Your task to perform on an android device: turn off data saver in the chrome app Image 0: 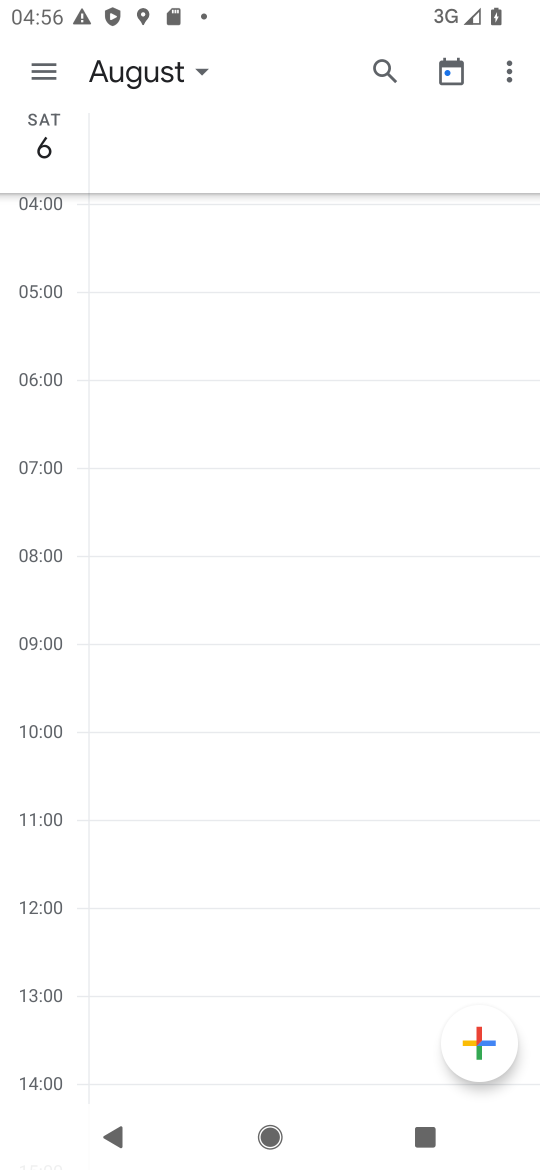
Step 0: press home button
Your task to perform on an android device: turn off data saver in the chrome app Image 1: 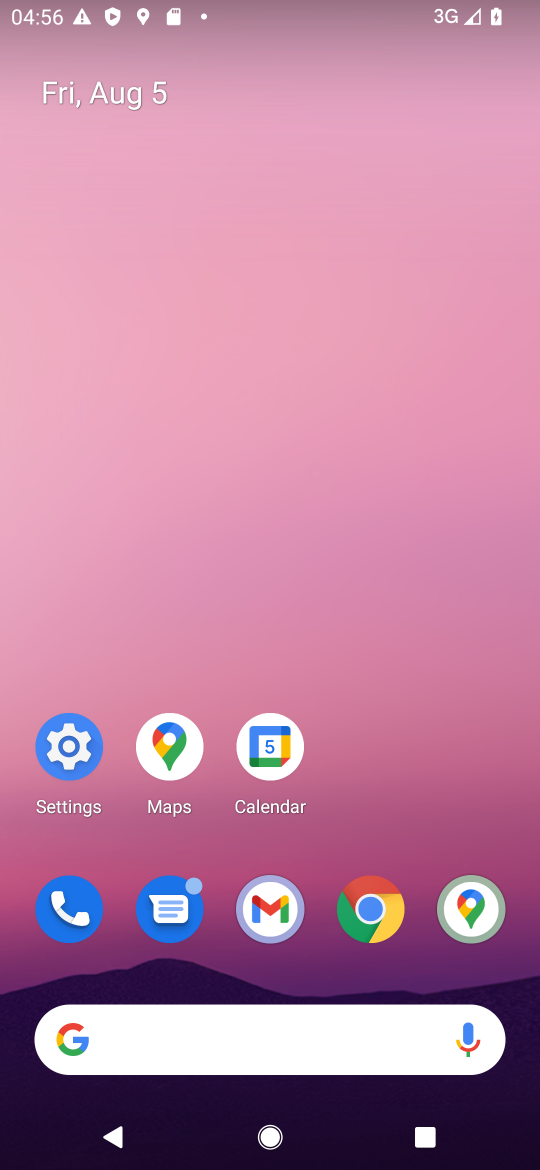
Step 1: click (367, 902)
Your task to perform on an android device: turn off data saver in the chrome app Image 2: 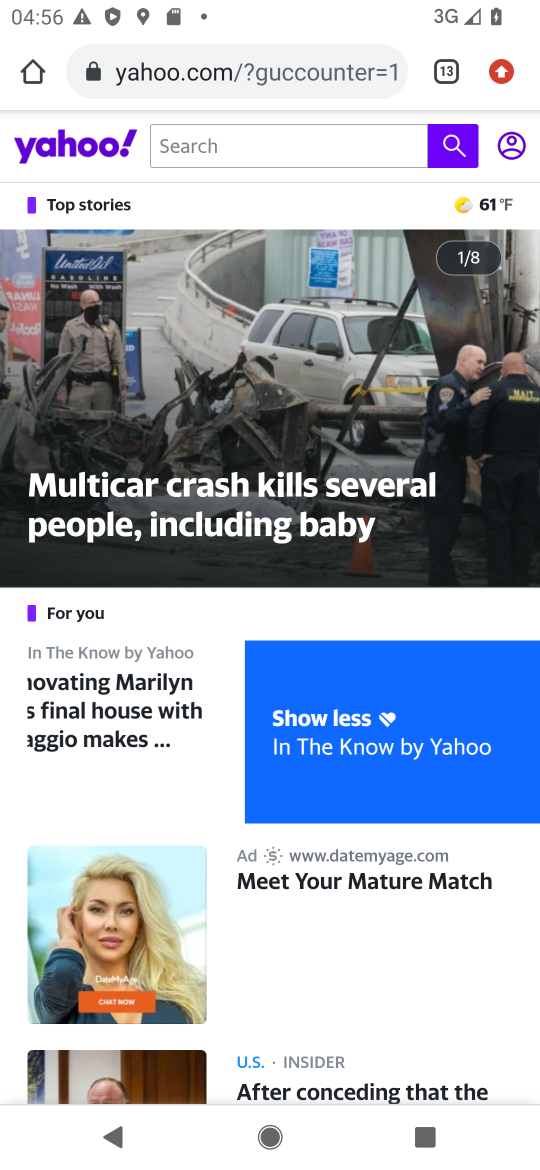
Step 2: click (495, 71)
Your task to perform on an android device: turn off data saver in the chrome app Image 3: 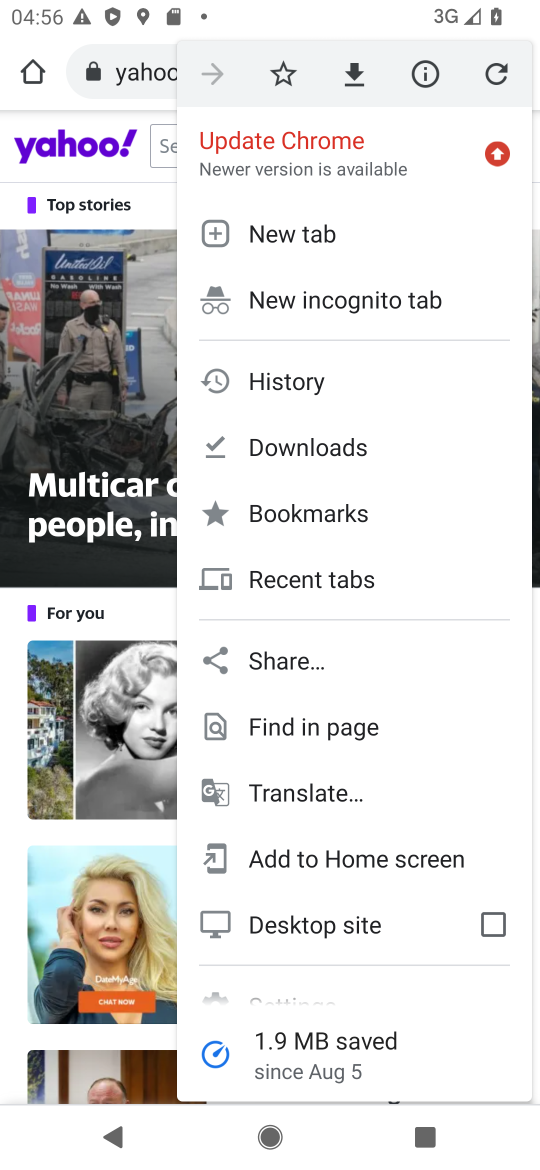
Step 3: drag from (397, 805) to (370, 144)
Your task to perform on an android device: turn off data saver in the chrome app Image 4: 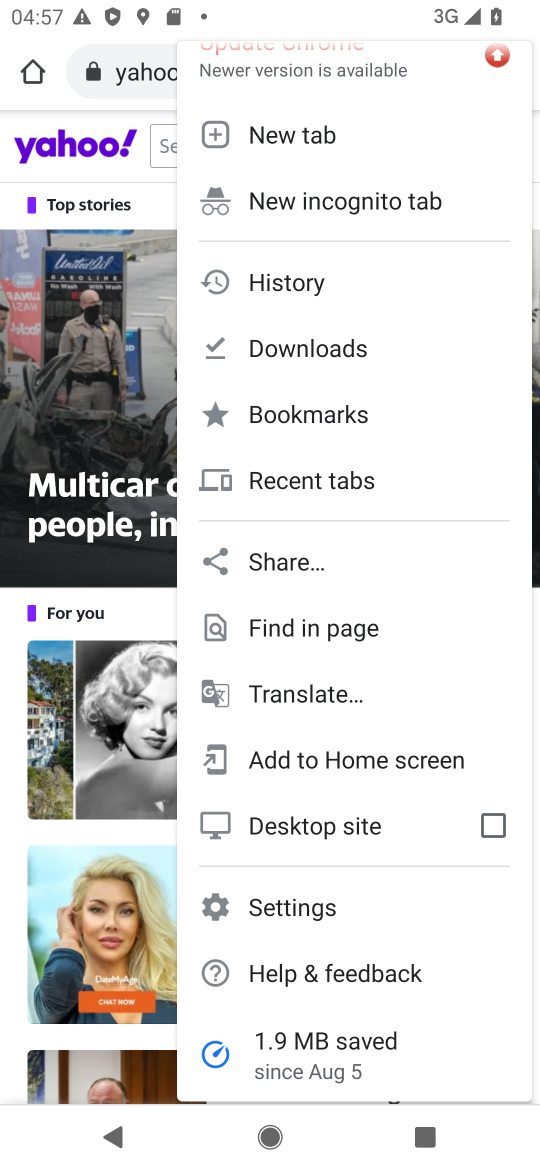
Step 4: click (295, 906)
Your task to perform on an android device: turn off data saver in the chrome app Image 5: 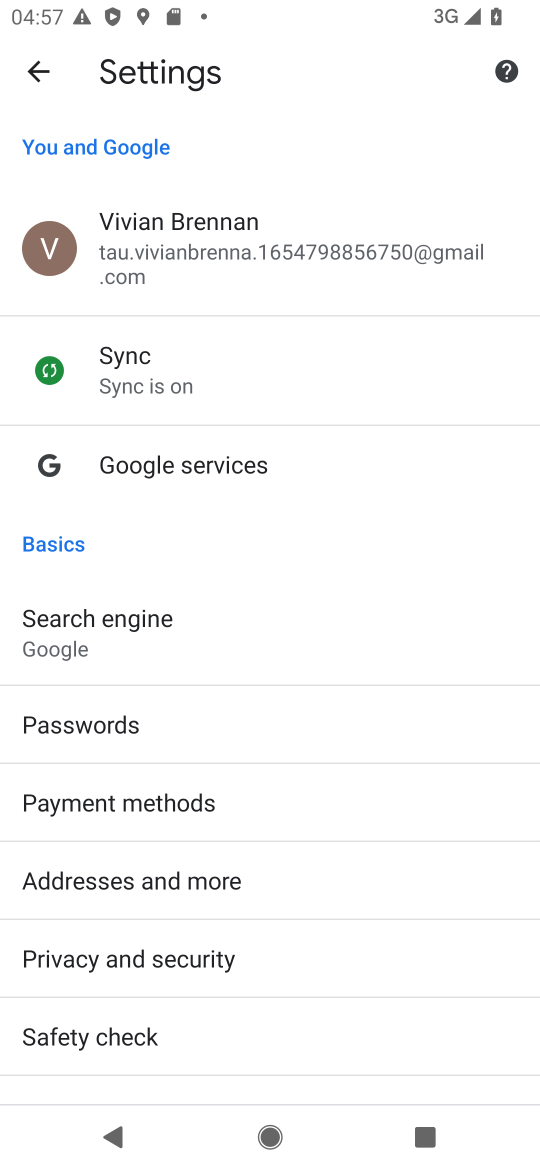
Step 5: drag from (275, 972) to (256, 257)
Your task to perform on an android device: turn off data saver in the chrome app Image 6: 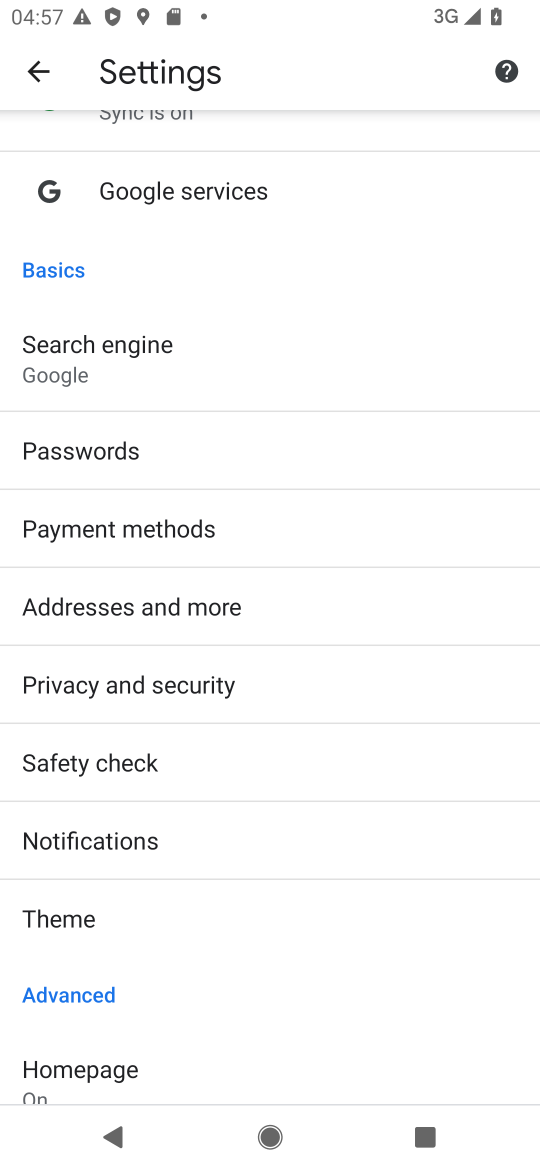
Step 6: drag from (286, 983) to (277, 378)
Your task to perform on an android device: turn off data saver in the chrome app Image 7: 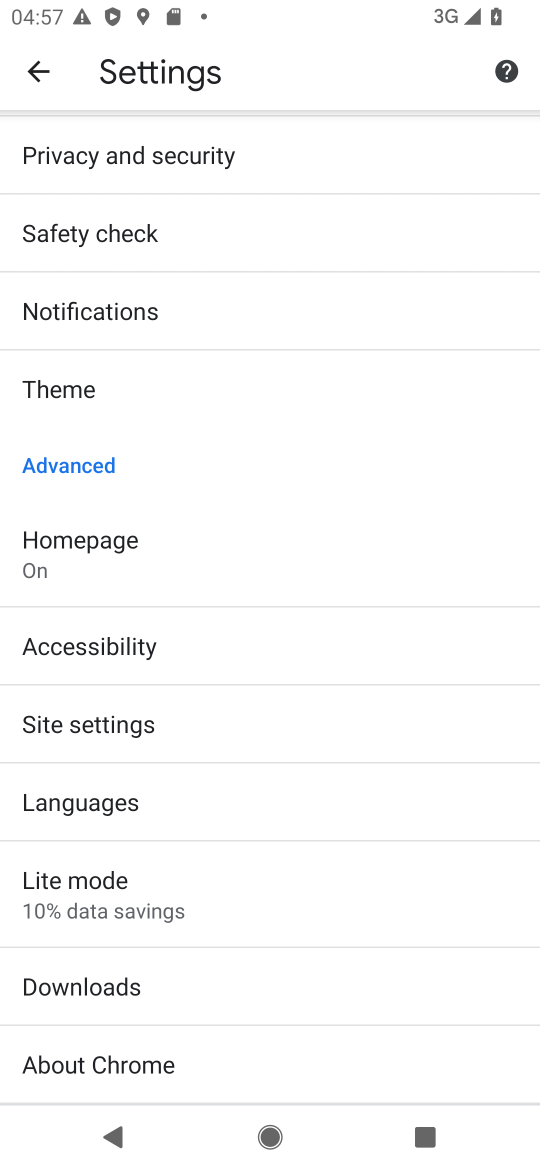
Step 7: click (108, 883)
Your task to perform on an android device: turn off data saver in the chrome app Image 8: 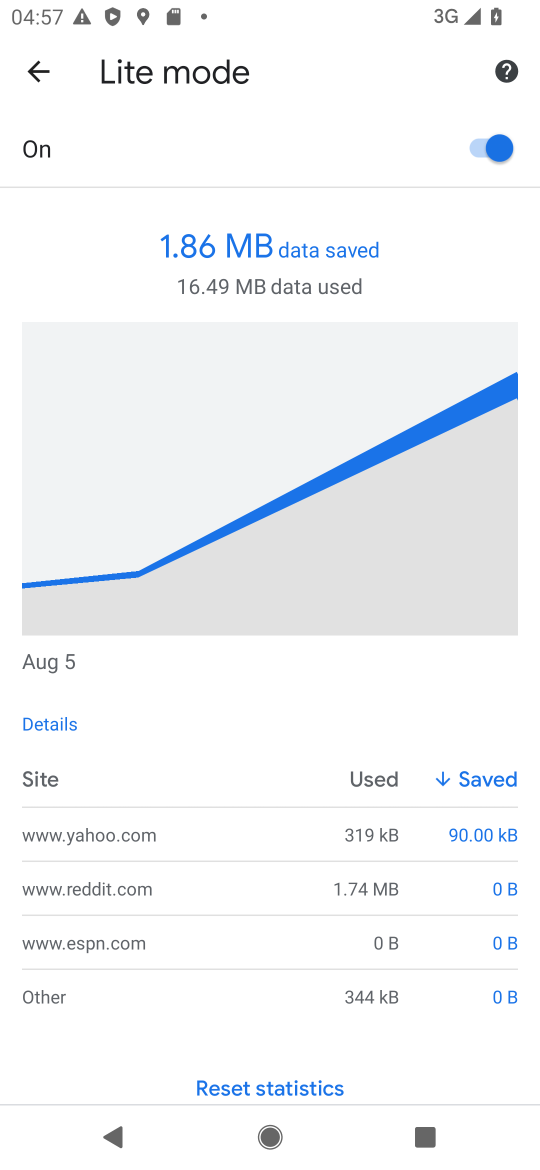
Step 8: click (495, 140)
Your task to perform on an android device: turn off data saver in the chrome app Image 9: 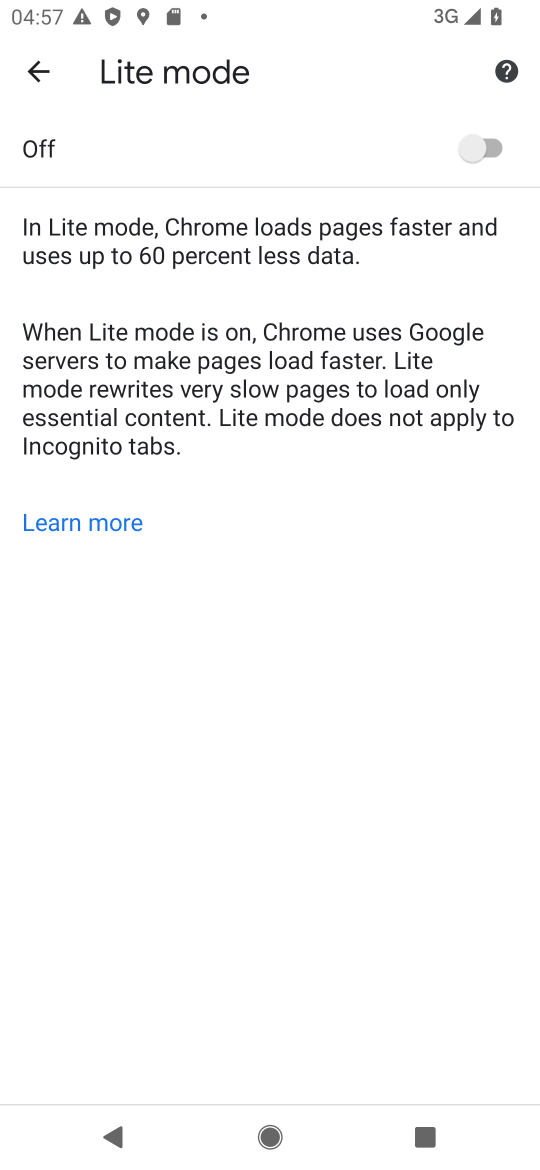
Step 9: task complete